Your task to perform on an android device: Go to accessibility settings Image 0: 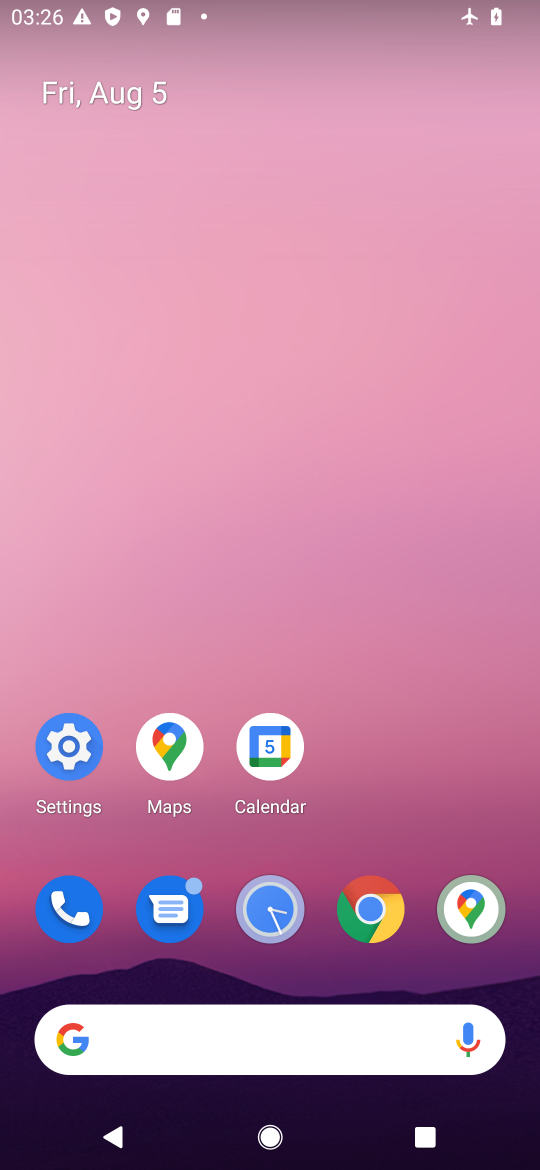
Step 0: click (57, 750)
Your task to perform on an android device: Go to accessibility settings Image 1: 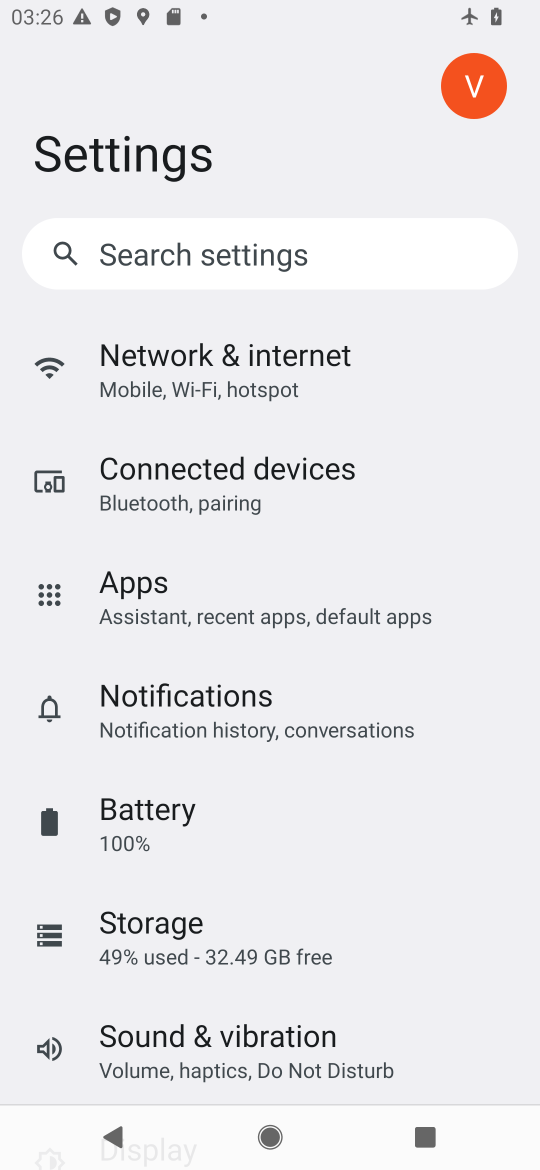
Step 1: drag from (321, 927) to (377, 316)
Your task to perform on an android device: Go to accessibility settings Image 2: 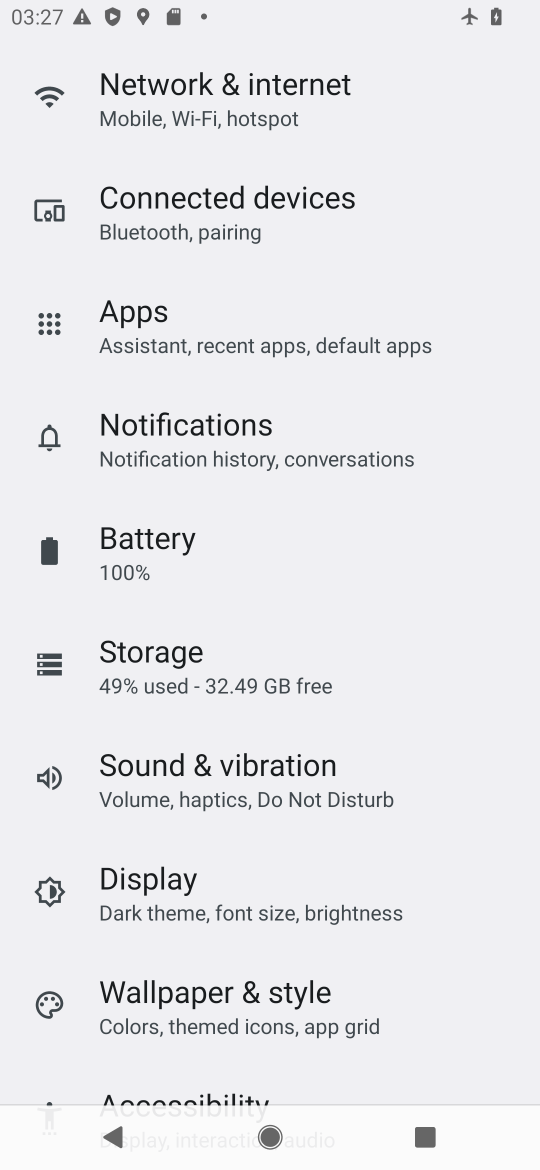
Step 2: drag from (394, 1026) to (418, 287)
Your task to perform on an android device: Go to accessibility settings Image 3: 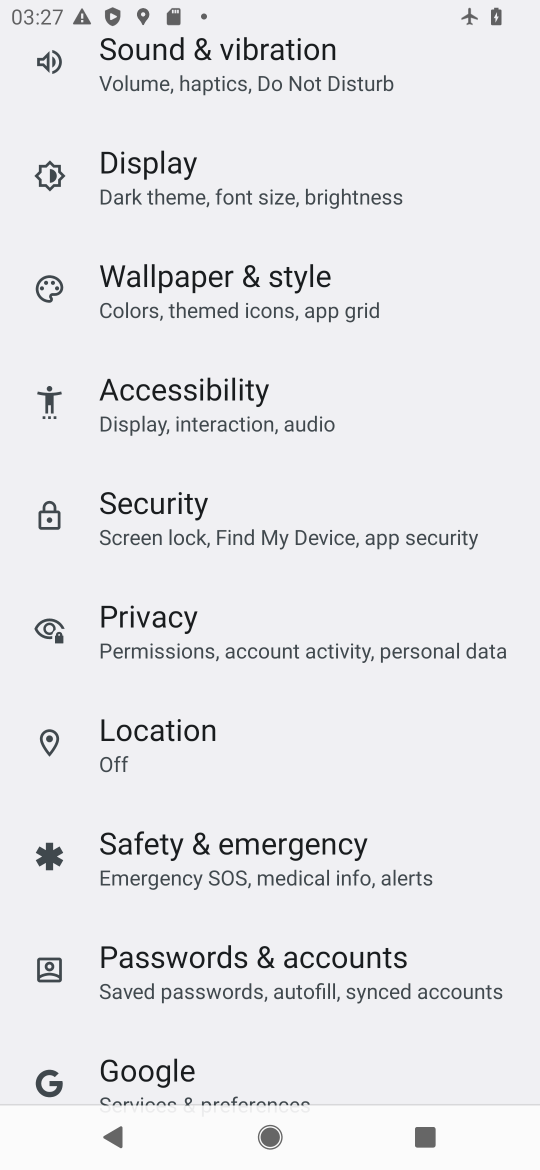
Step 3: click (187, 402)
Your task to perform on an android device: Go to accessibility settings Image 4: 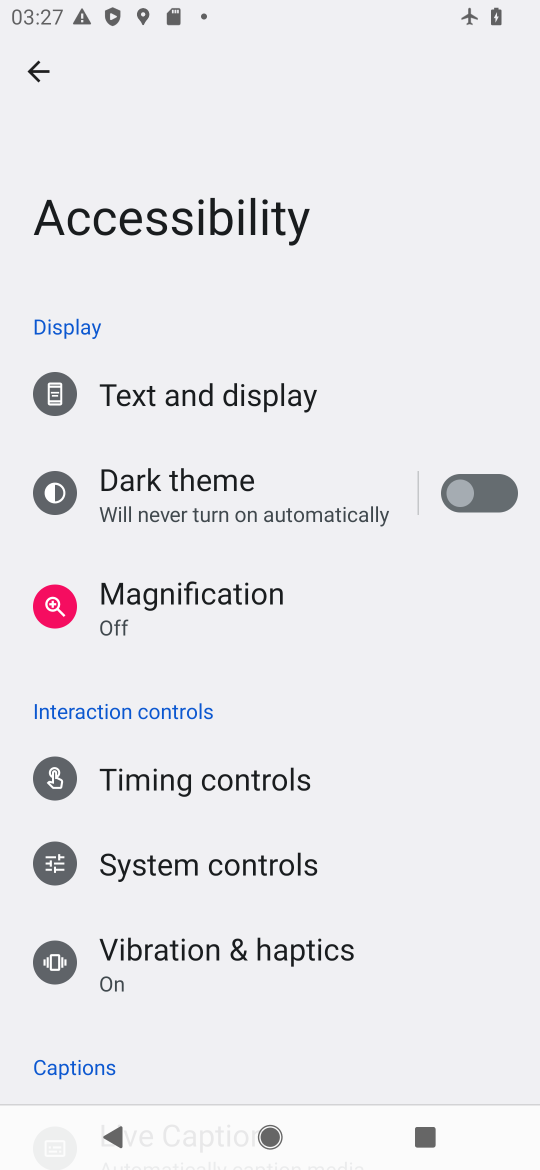
Step 4: task complete